Your task to perform on an android device: turn off sleep mode Image 0: 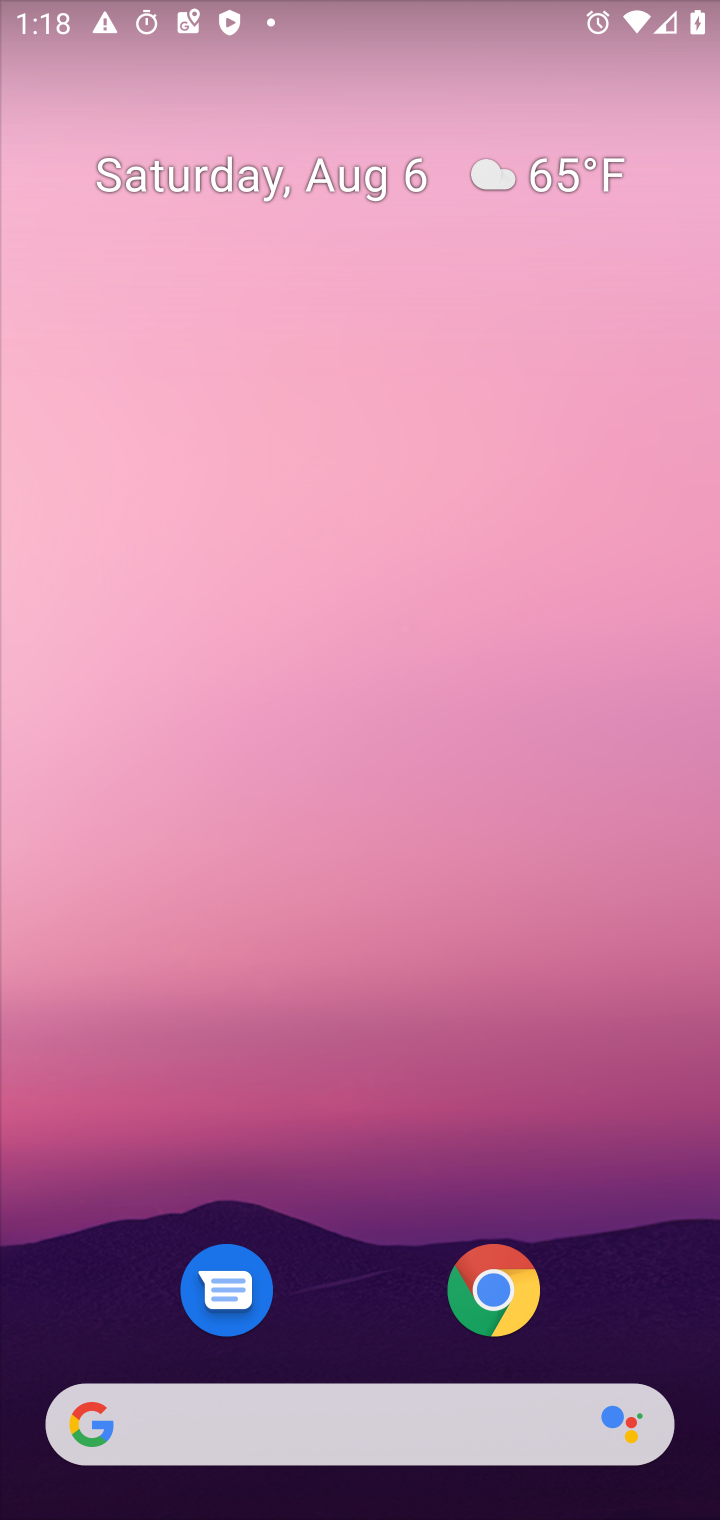
Step 0: press home button
Your task to perform on an android device: turn off sleep mode Image 1: 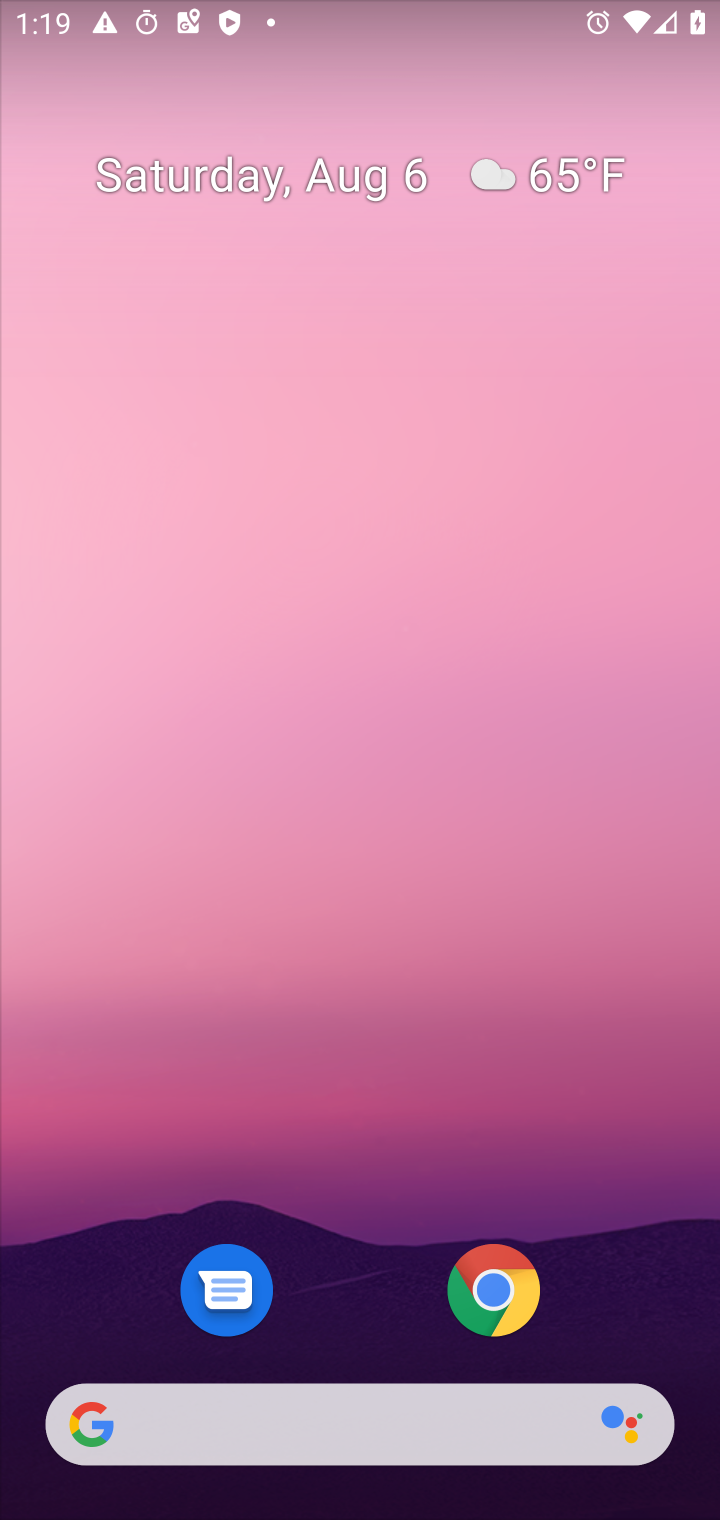
Step 1: drag from (378, 1327) to (416, 246)
Your task to perform on an android device: turn off sleep mode Image 2: 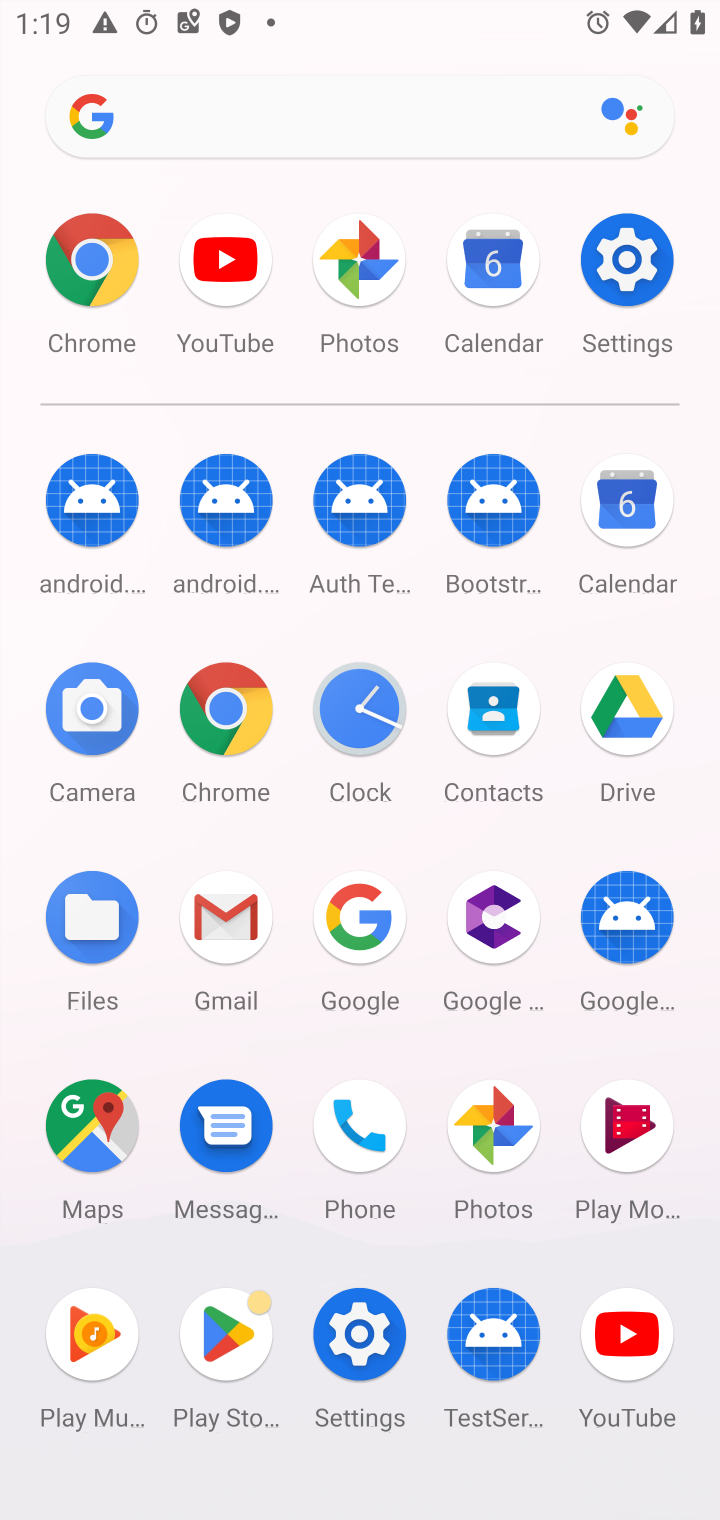
Step 2: click (625, 238)
Your task to perform on an android device: turn off sleep mode Image 3: 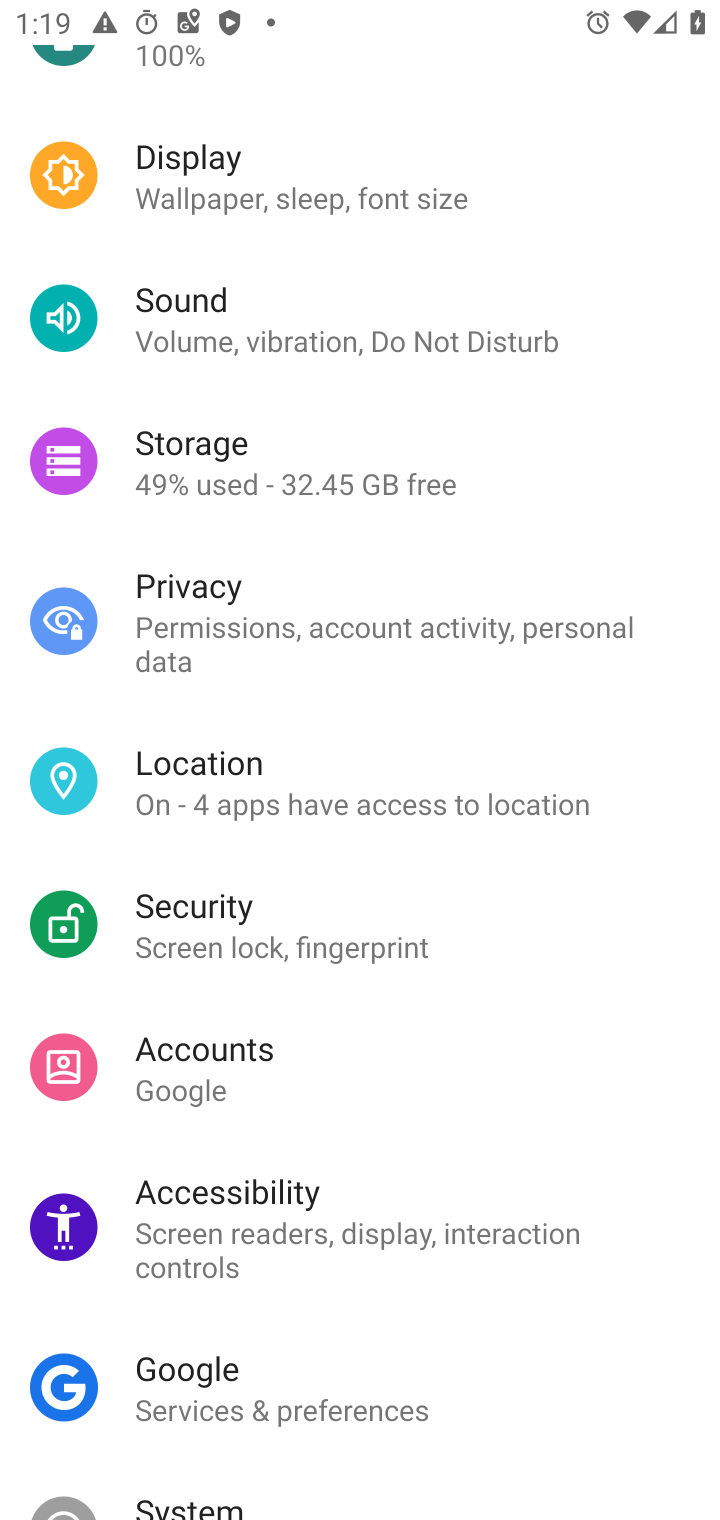
Step 3: click (243, 165)
Your task to perform on an android device: turn off sleep mode Image 4: 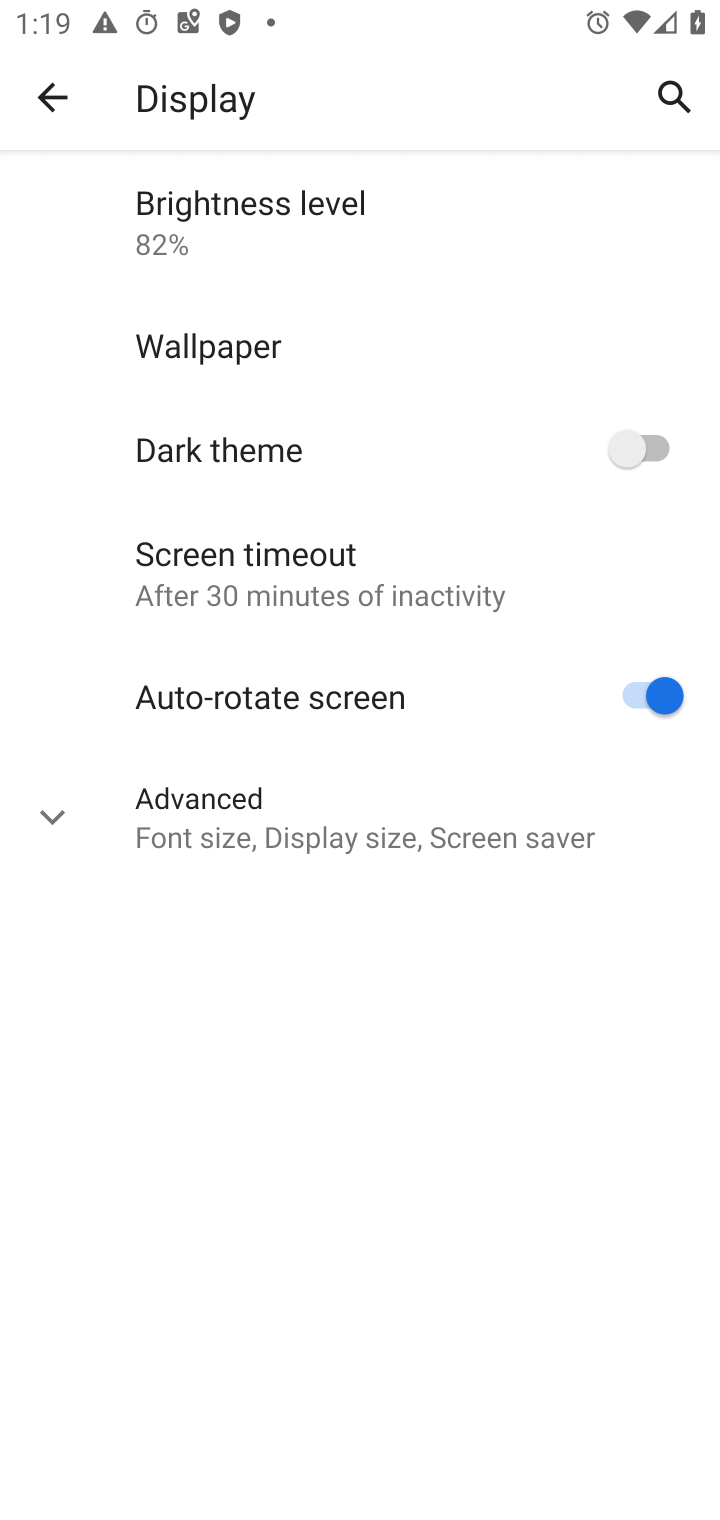
Step 4: click (62, 810)
Your task to perform on an android device: turn off sleep mode Image 5: 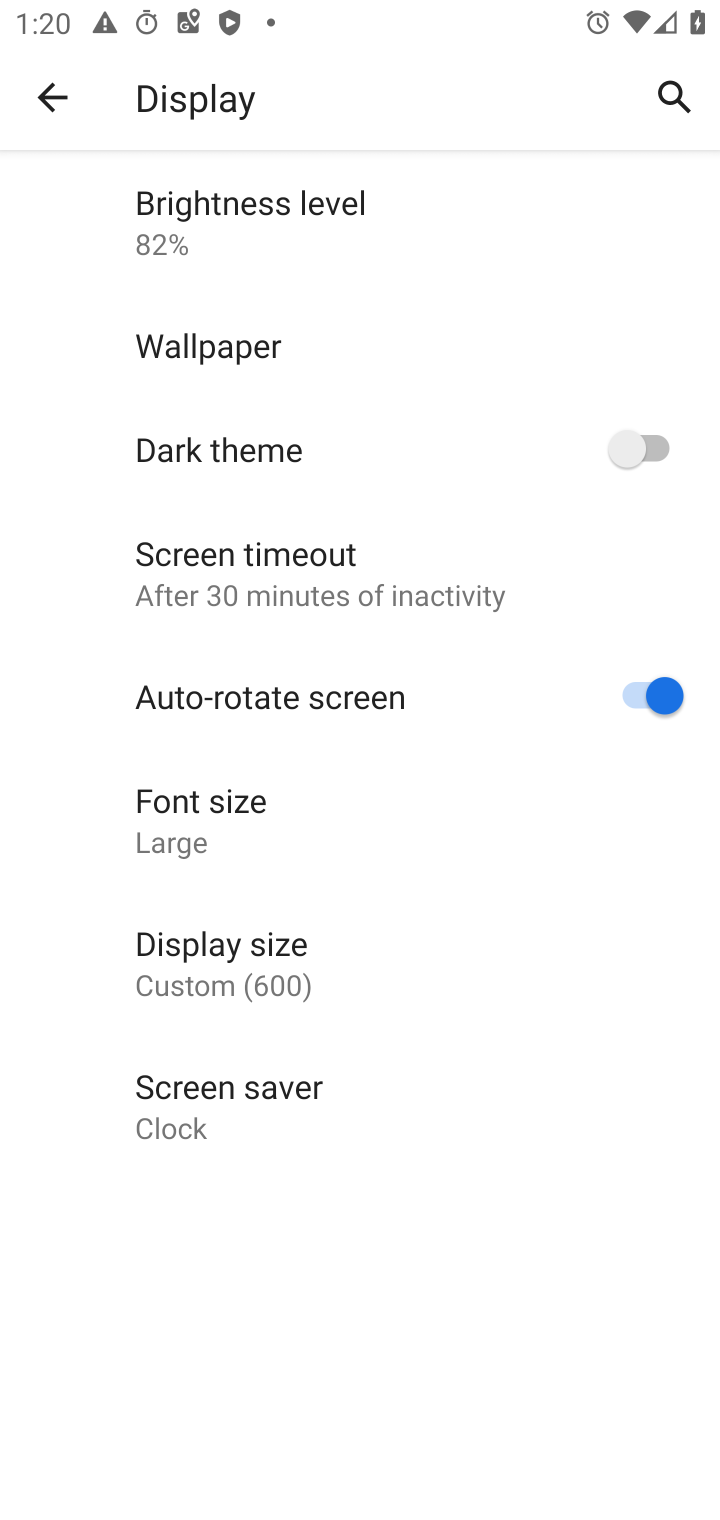
Step 5: task complete